Your task to perform on an android device: change the clock style Image 0: 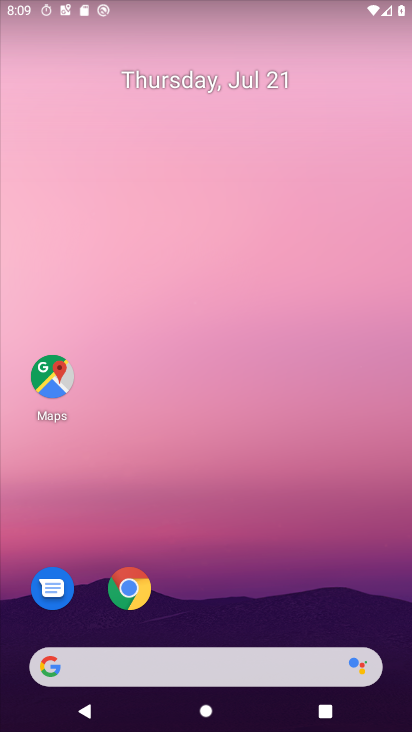
Step 0: drag from (269, 590) to (287, 46)
Your task to perform on an android device: change the clock style Image 1: 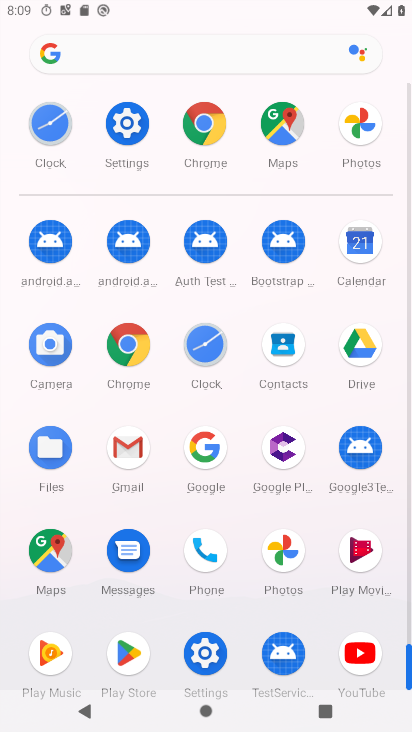
Step 1: click (196, 348)
Your task to perform on an android device: change the clock style Image 2: 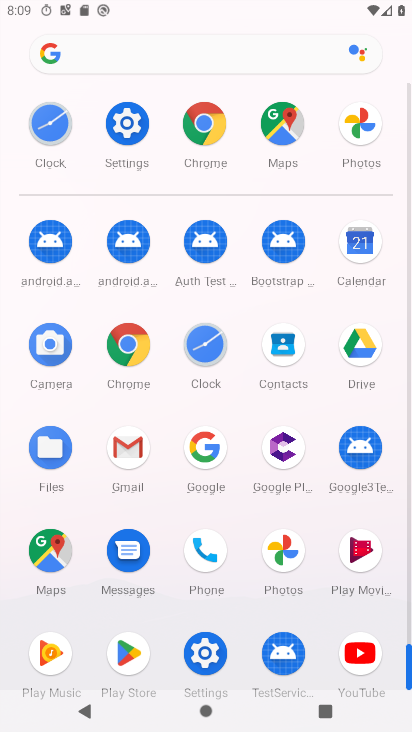
Step 2: click (202, 344)
Your task to perform on an android device: change the clock style Image 3: 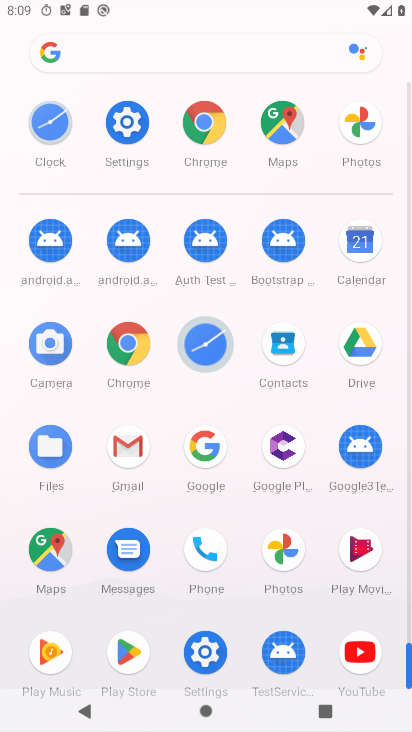
Step 3: click (203, 343)
Your task to perform on an android device: change the clock style Image 4: 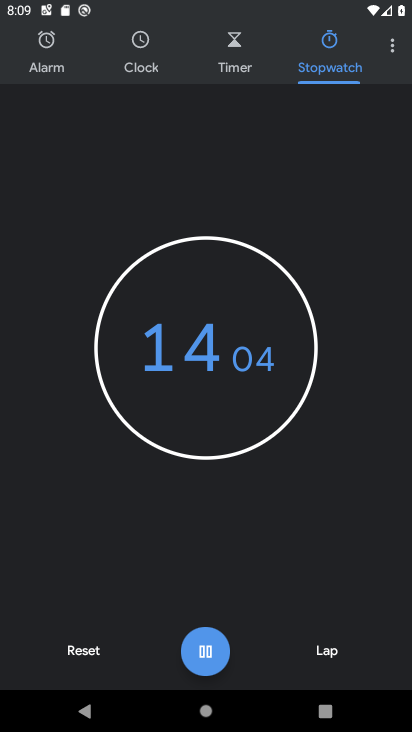
Step 4: click (214, 655)
Your task to perform on an android device: change the clock style Image 5: 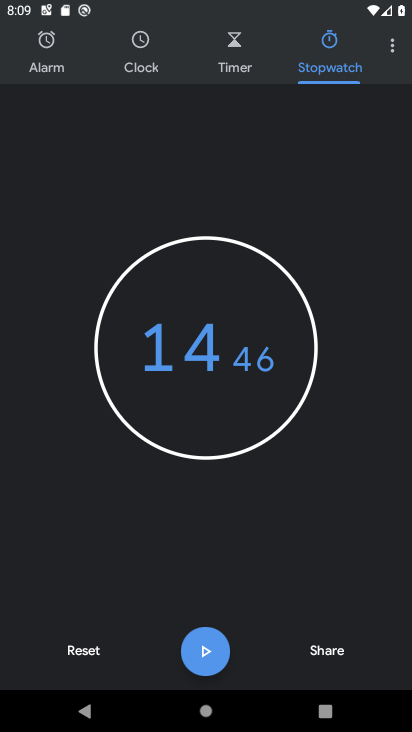
Step 5: click (211, 651)
Your task to perform on an android device: change the clock style Image 6: 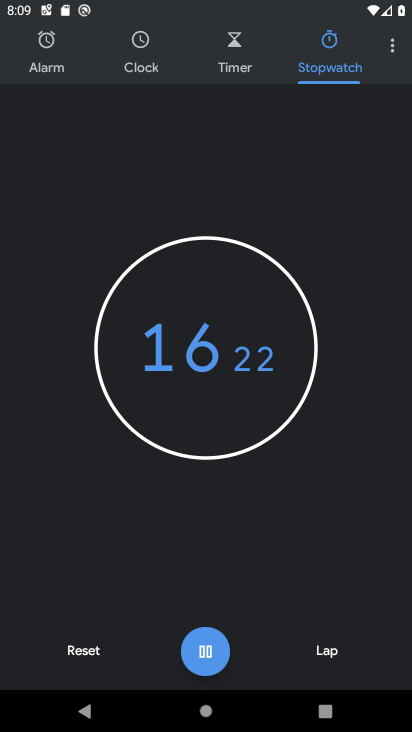
Step 6: click (205, 652)
Your task to perform on an android device: change the clock style Image 7: 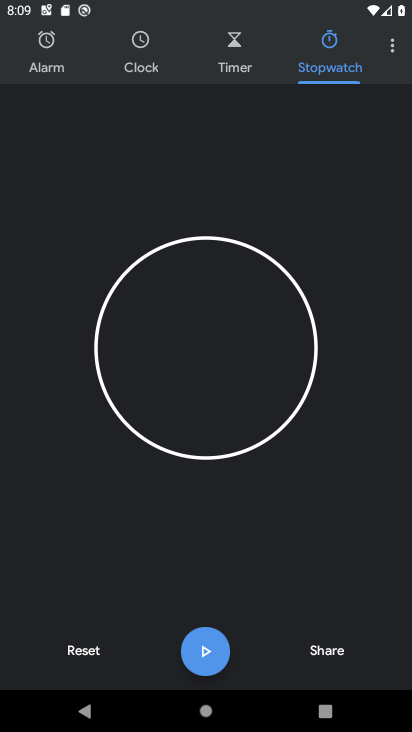
Step 7: click (392, 43)
Your task to perform on an android device: change the clock style Image 8: 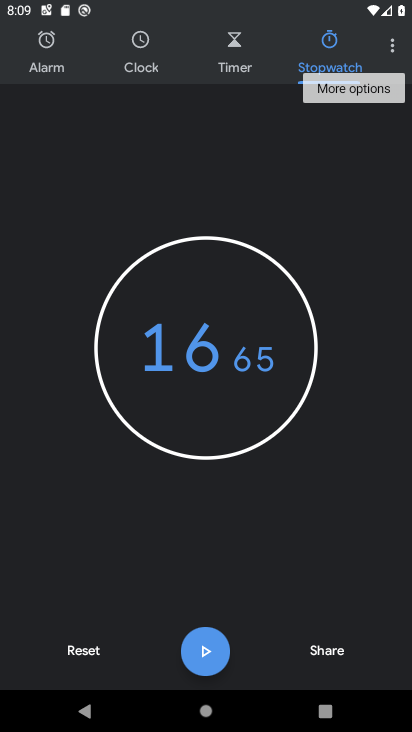
Step 8: click (396, 47)
Your task to perform on an android device: change the clock style Image 9: 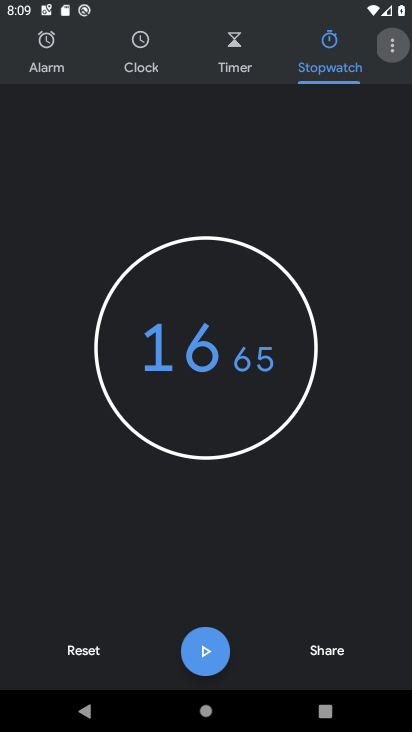
Step 9: click (396, 47)
Your task to perform on an android device: change the clock style Image 10: 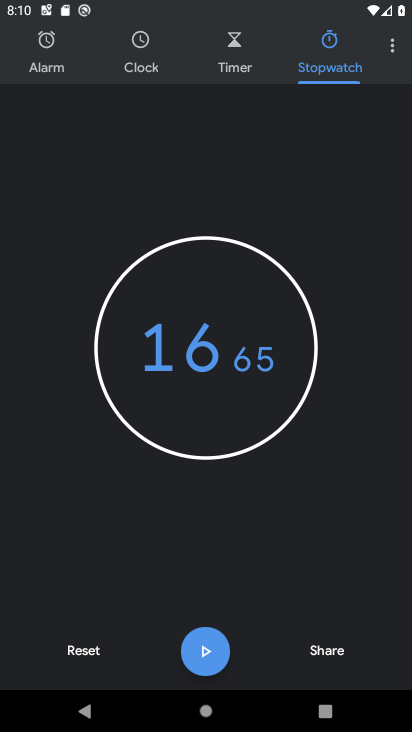
Step 10: click (396, 47)
Your task to perform on an android device: change the clock style Image 11: 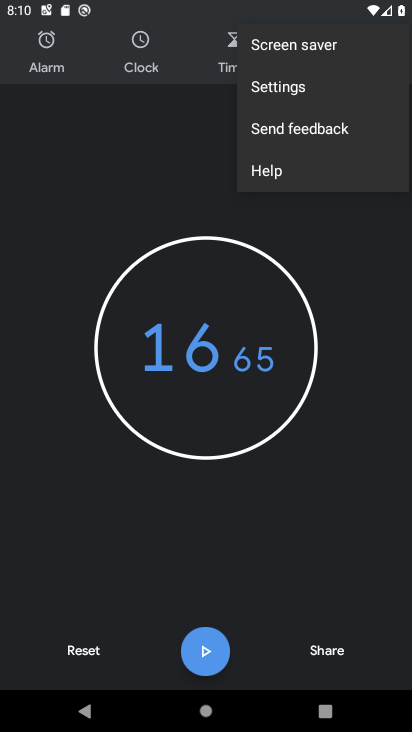
Step 11: click (291, 73)
Your task to perform on an android device: change the clock style Image 12: 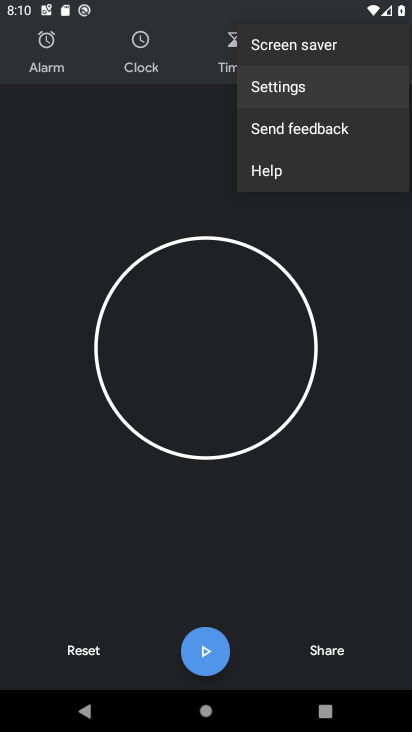
Step 12: click (281, 91)
Your task to perform on an android device: change the clock style Image 13: 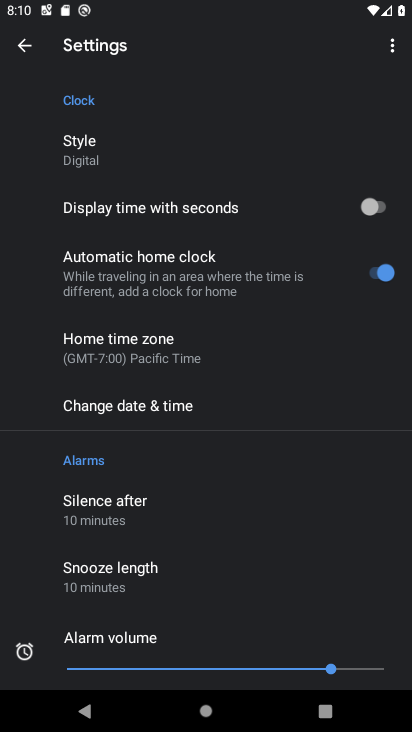
Step 13: click (122, 159)
Your task to perform on an android device: change the clock style Image 14: 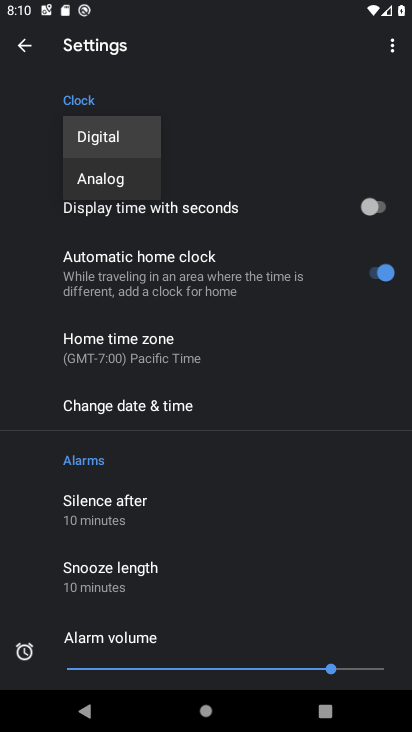
Step 14: click (110, 137)
Your task to perform on an android device: change the clock style Image 15: 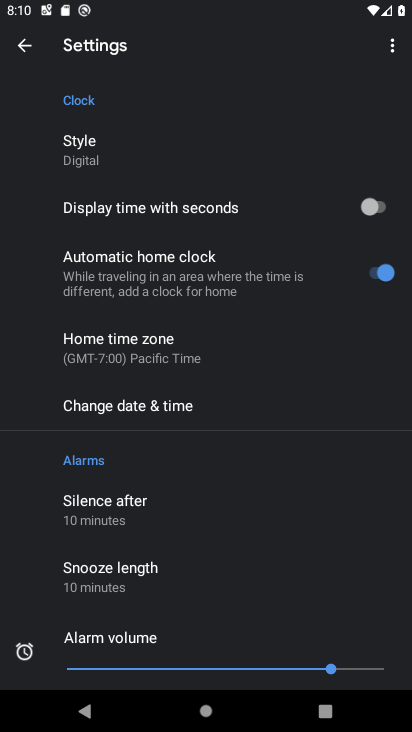
Step 15: task complete